Your task to perform on an android device: Open Google Image 0: 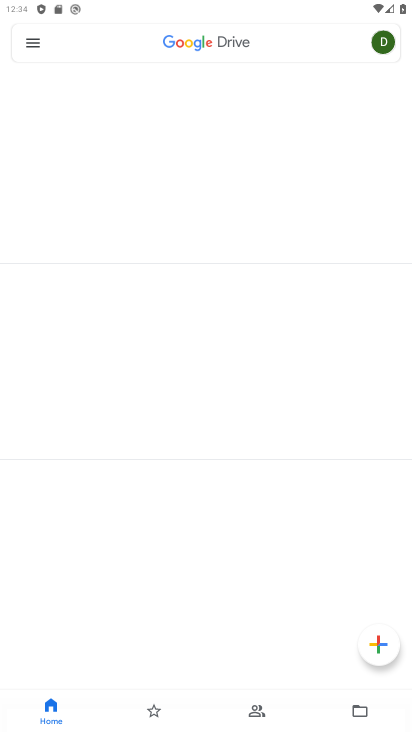
Step 0: drag from (186, 553) to (131, 7)
Your task to perform on an android device: Open Google Image 1: 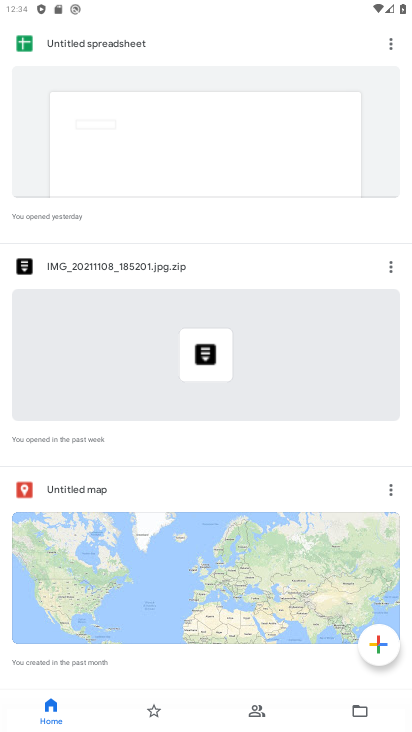
Step 1: press home button
Your task to perform on an android device: Open Google Image 2: 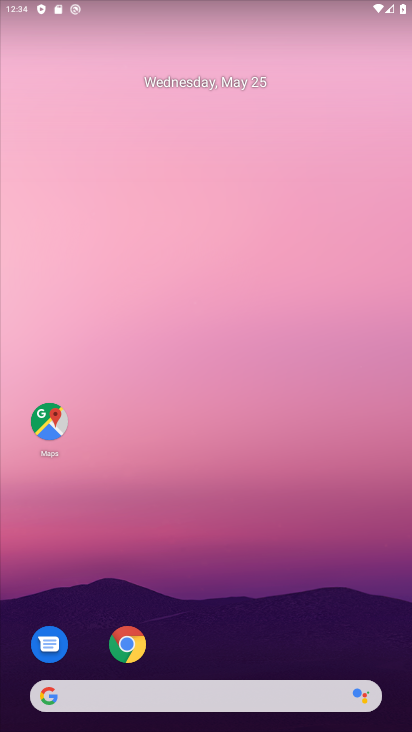
Step 2: click (46, 690)
Your task to perform on an android device: Open Google Image 3: 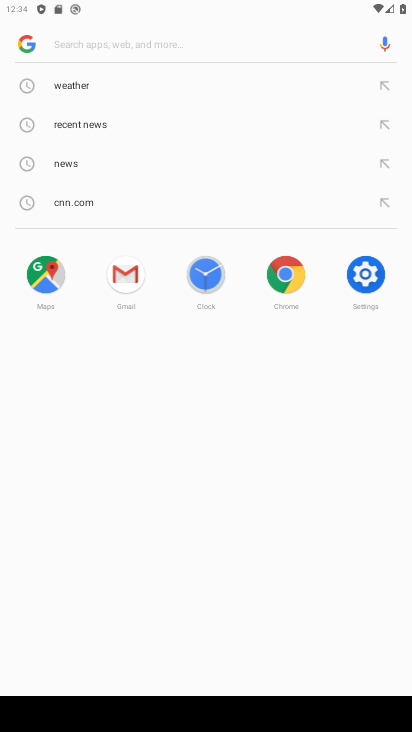
Step 3: click (23, 38)
Your task to perform on an android device: Open Google Image 4: 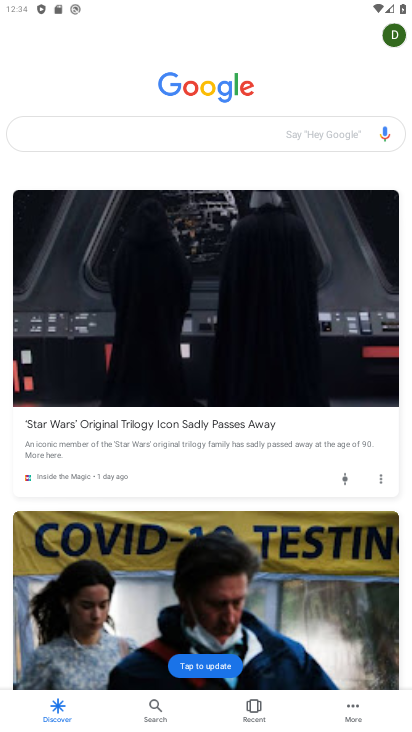
Step 4: click (199, 123)
Your task to perform on an android device: Open Google Image 5: 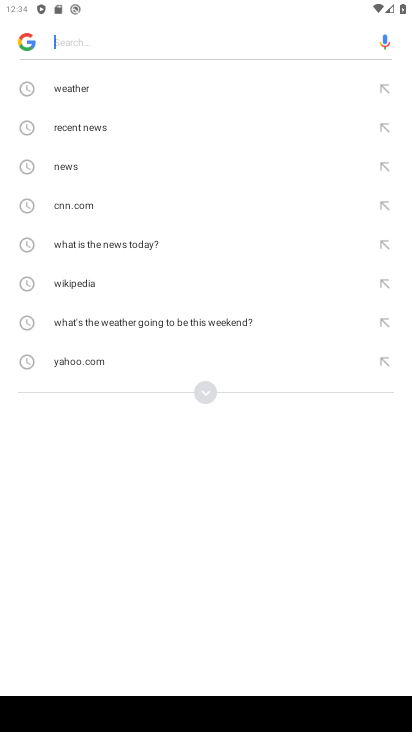
Step 5: task complete